Your task to perform on an android device: find photos in the google photos app Image 0: 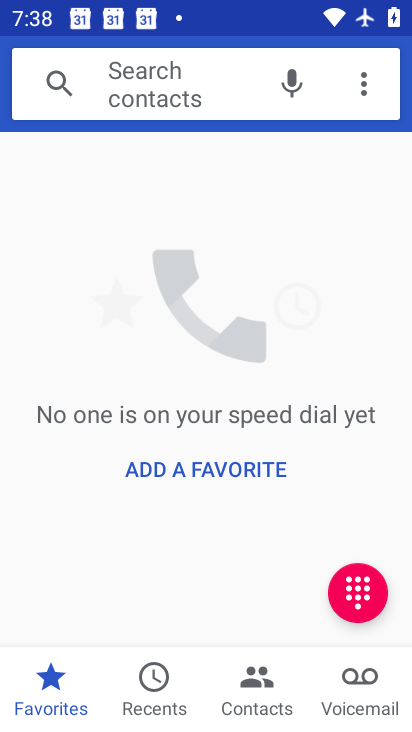
Step 0: press home button
Your task to perform on an android device: find photos in the google photos app Image 1: 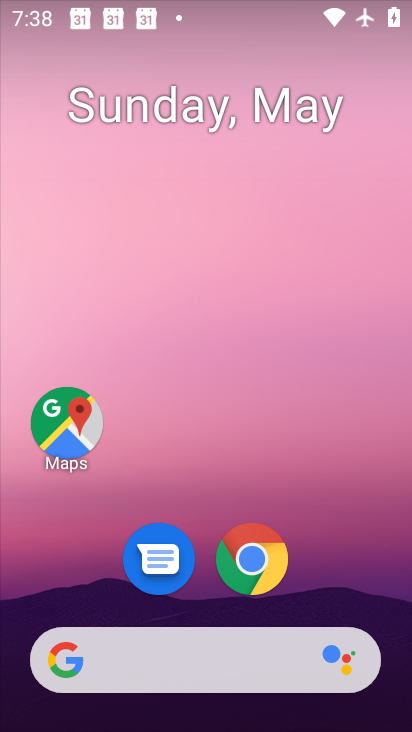
Step 1: drag from (217, 629) to (338, 87)
Your task to perform on an android device: find photos in the google photos app Image 2: 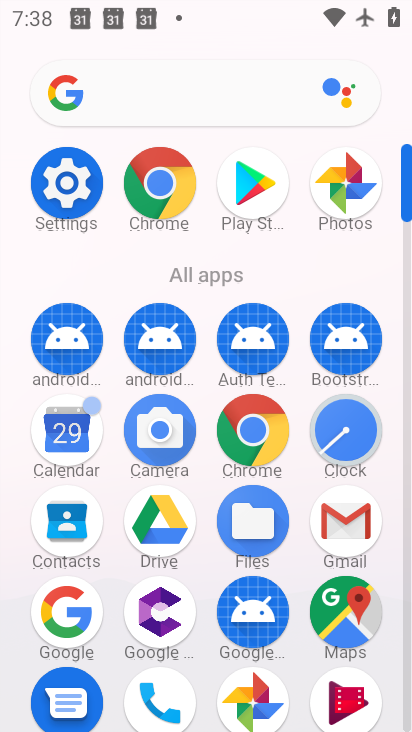
Step 2: click (332, 181)
Your task to perform on an android device: find photos in the google photos app Image 3: 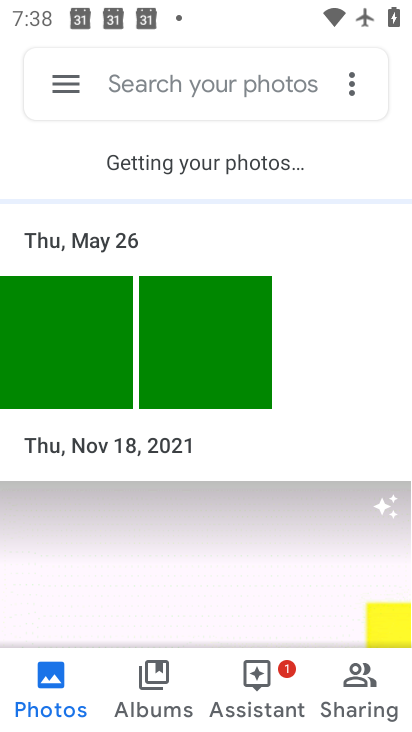
Step 3: task complete